Your task to perform on an android device: Add bose soundlink to the cart on walmart.com, then select checkout. Image 0: 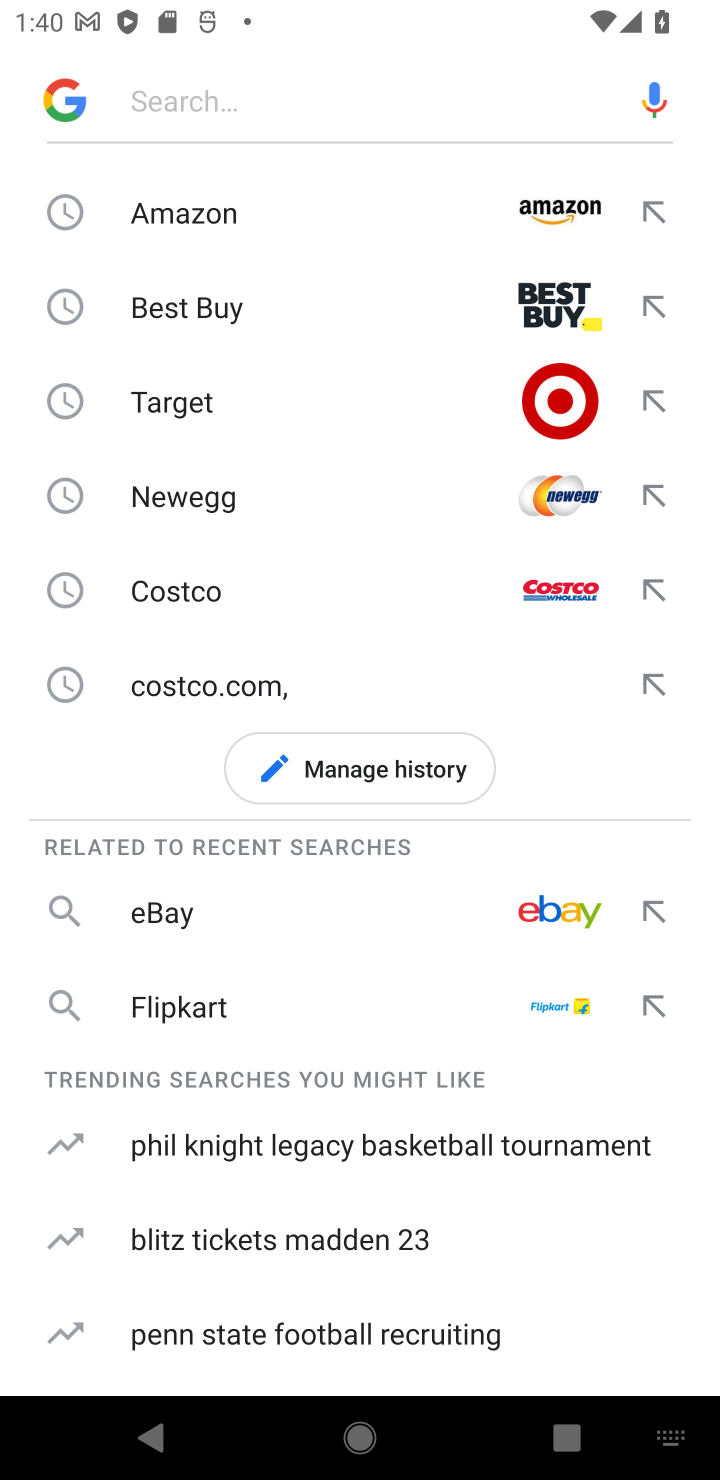
Step 0: type "walmart"
Your task to perform on an android device: Add bose soundlink to the cart on walmart.com, then select checkout. Image 1: 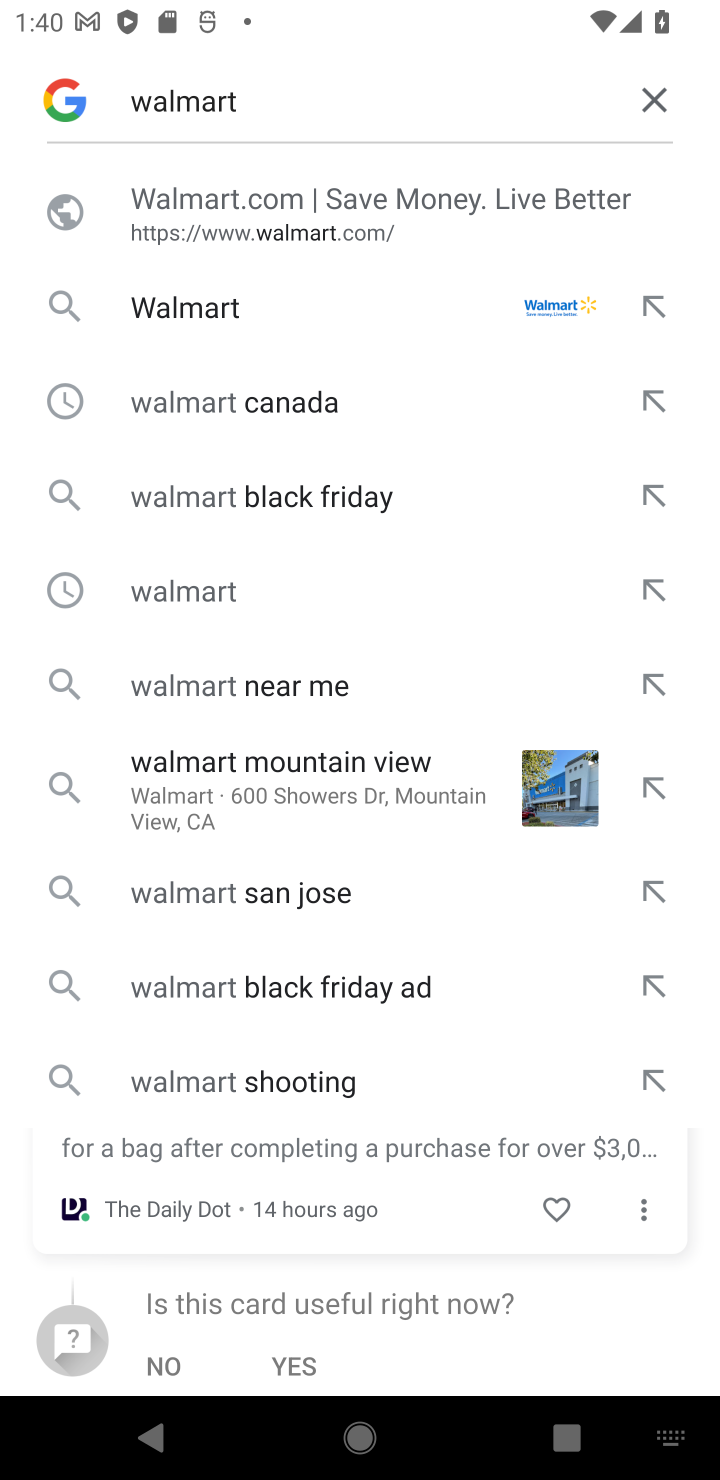
Step 1: click (237, 265)
Your task to perform on an android device: Add bose soundlink to the cart on walmart.com, then select checkout. Image 2: 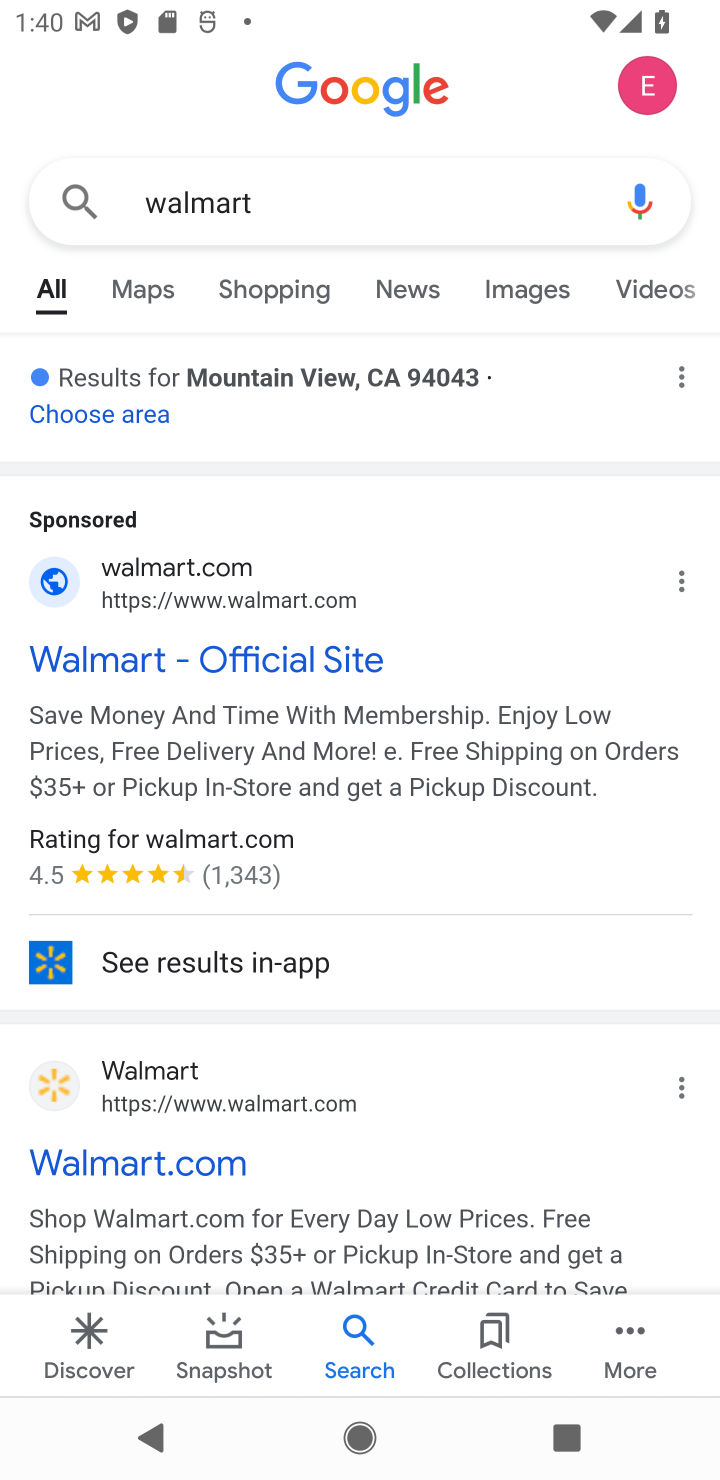
Step 2: click (278, 700)
Your task to perform on an android device: Add bose soundlink to the cart on walmart.com, then select checkout. Image 3: 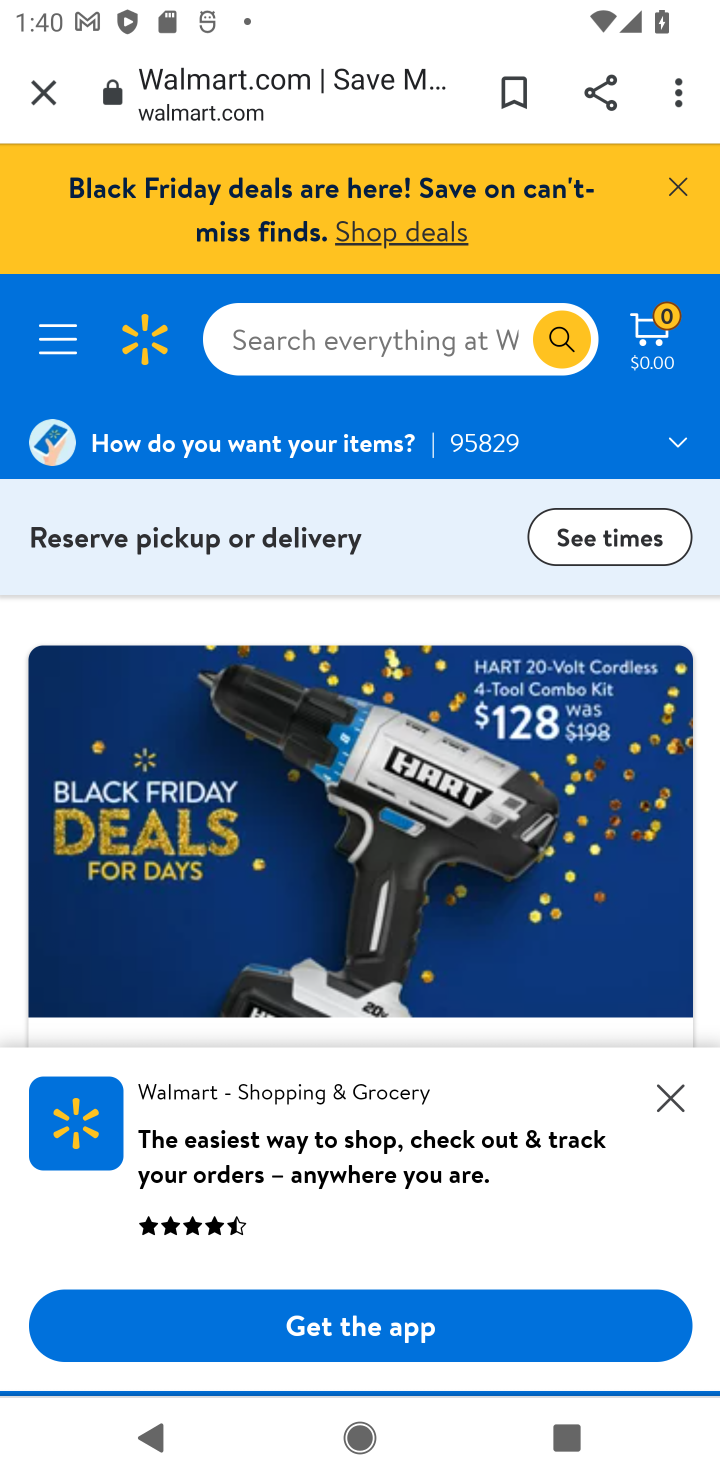
Step 3: task complete